Your task to perform on an android device: set the stopwatch Image 0: 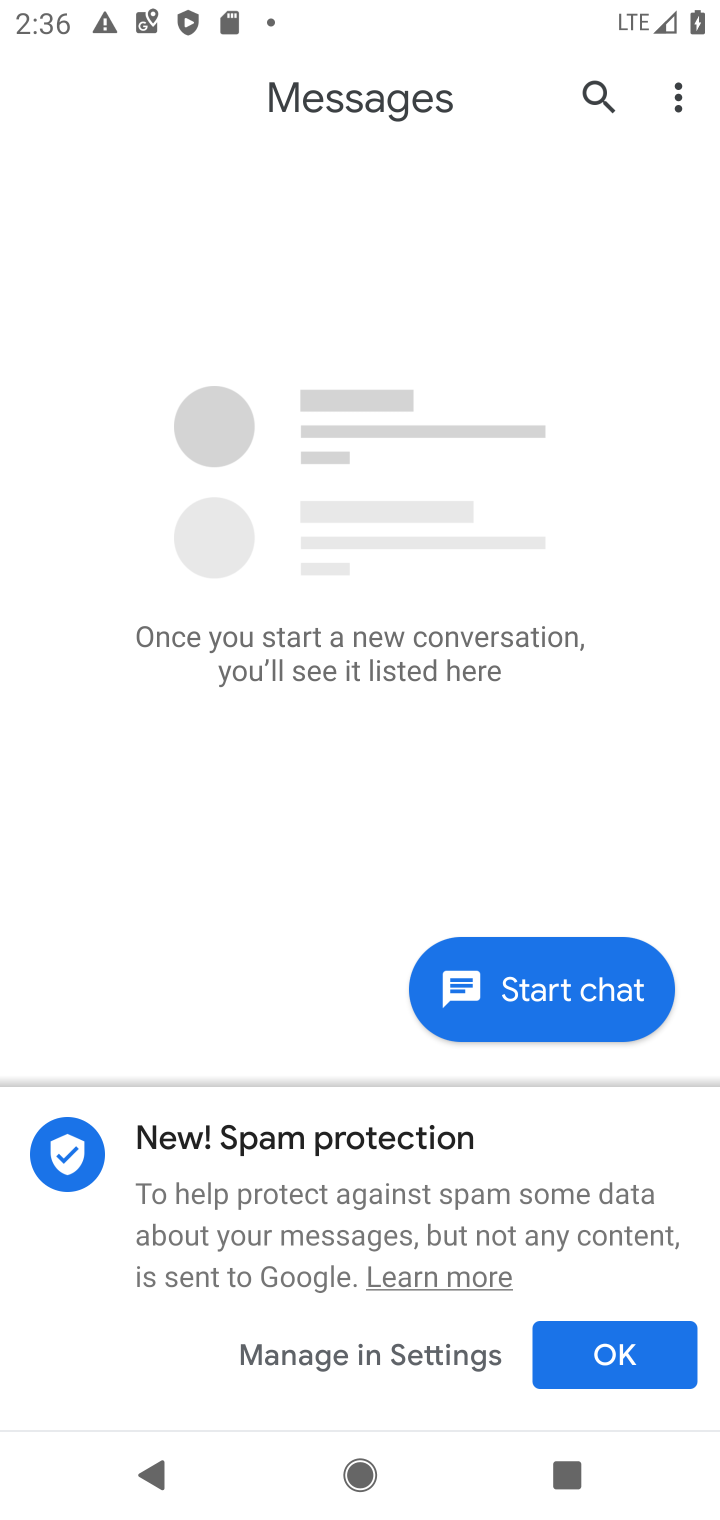
Step 0: press back button
Your task to perform on an android device: set the stopwatch Image 1: 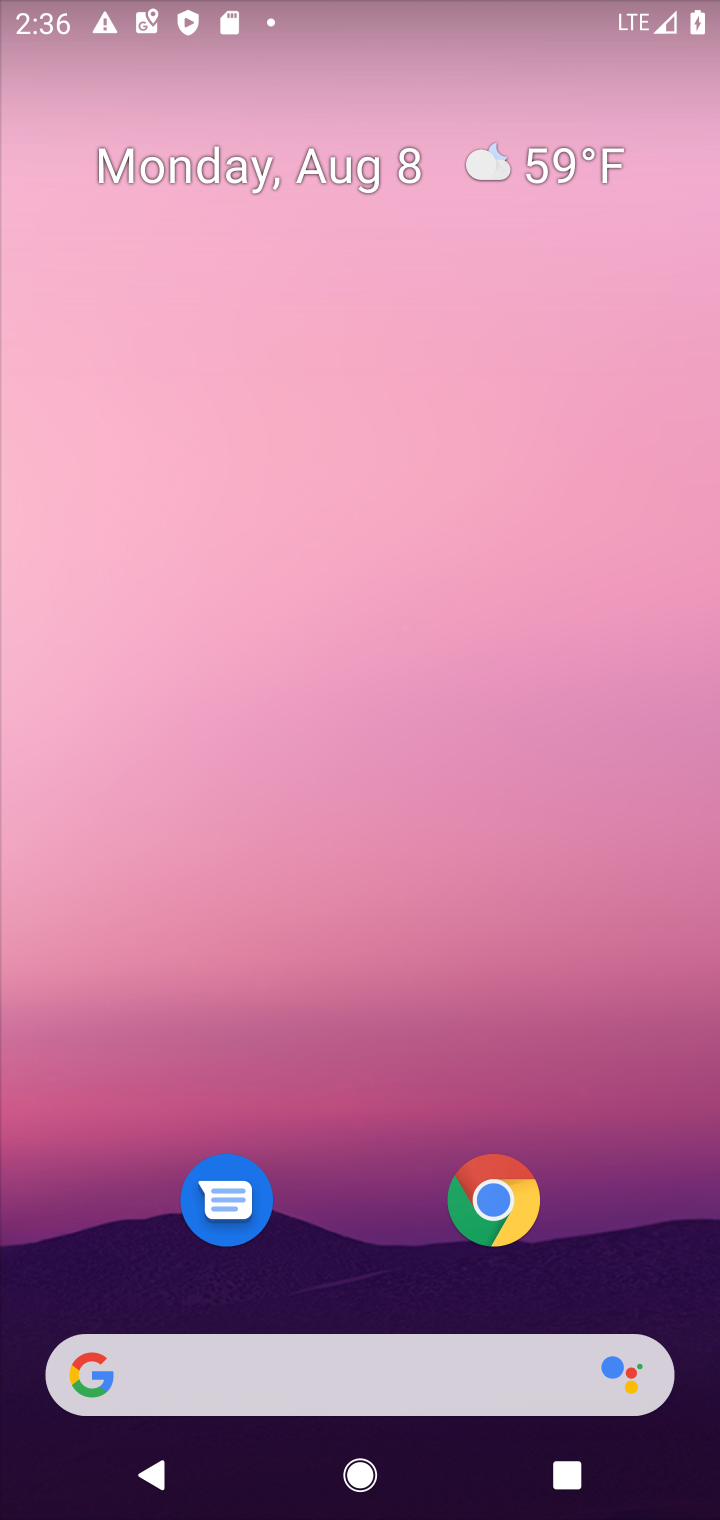
Step 1: drag from (505, 690) to (553, 1)
Your task to perform on an android device: set the stopwatch Image 2: 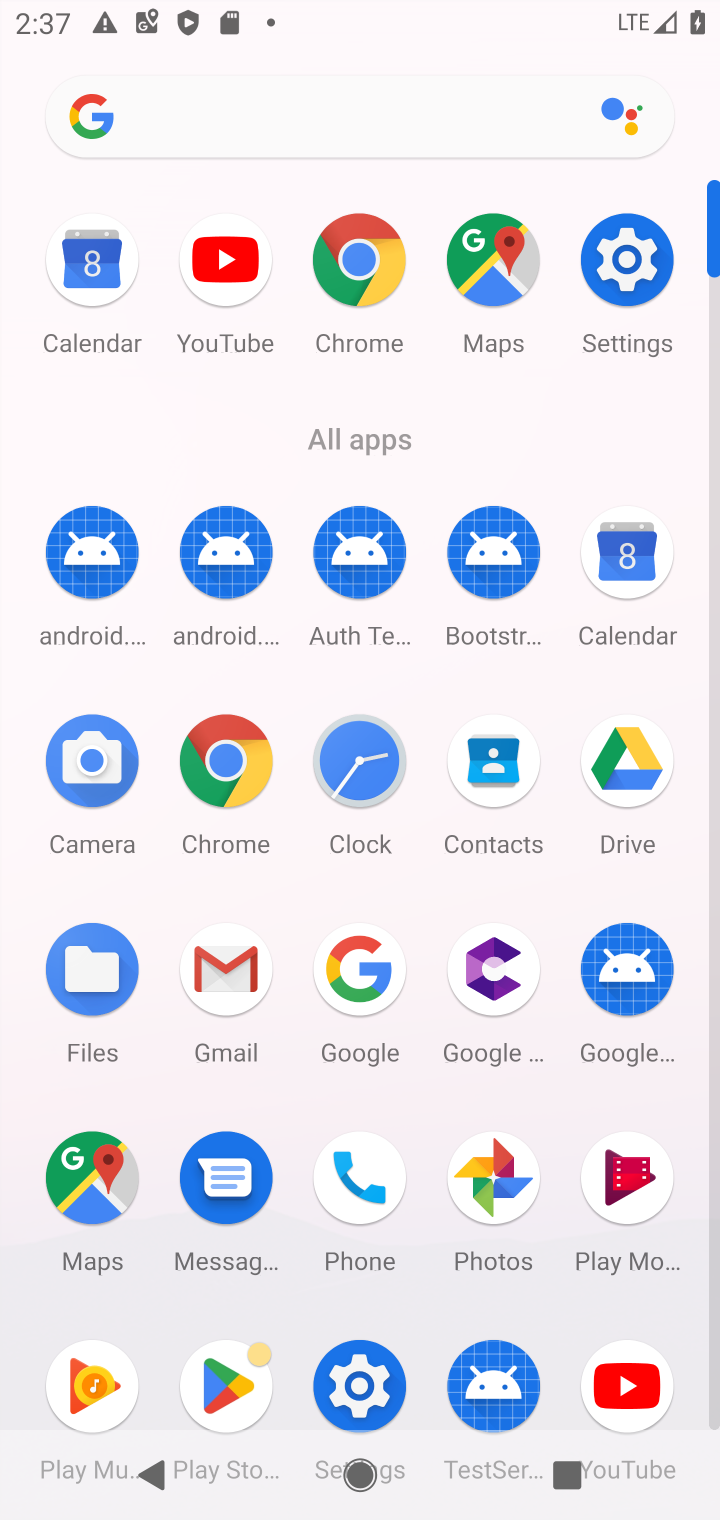
Step 2: click (352, 767)
Your task to perform on an android device: set the stopwatch Image 3: 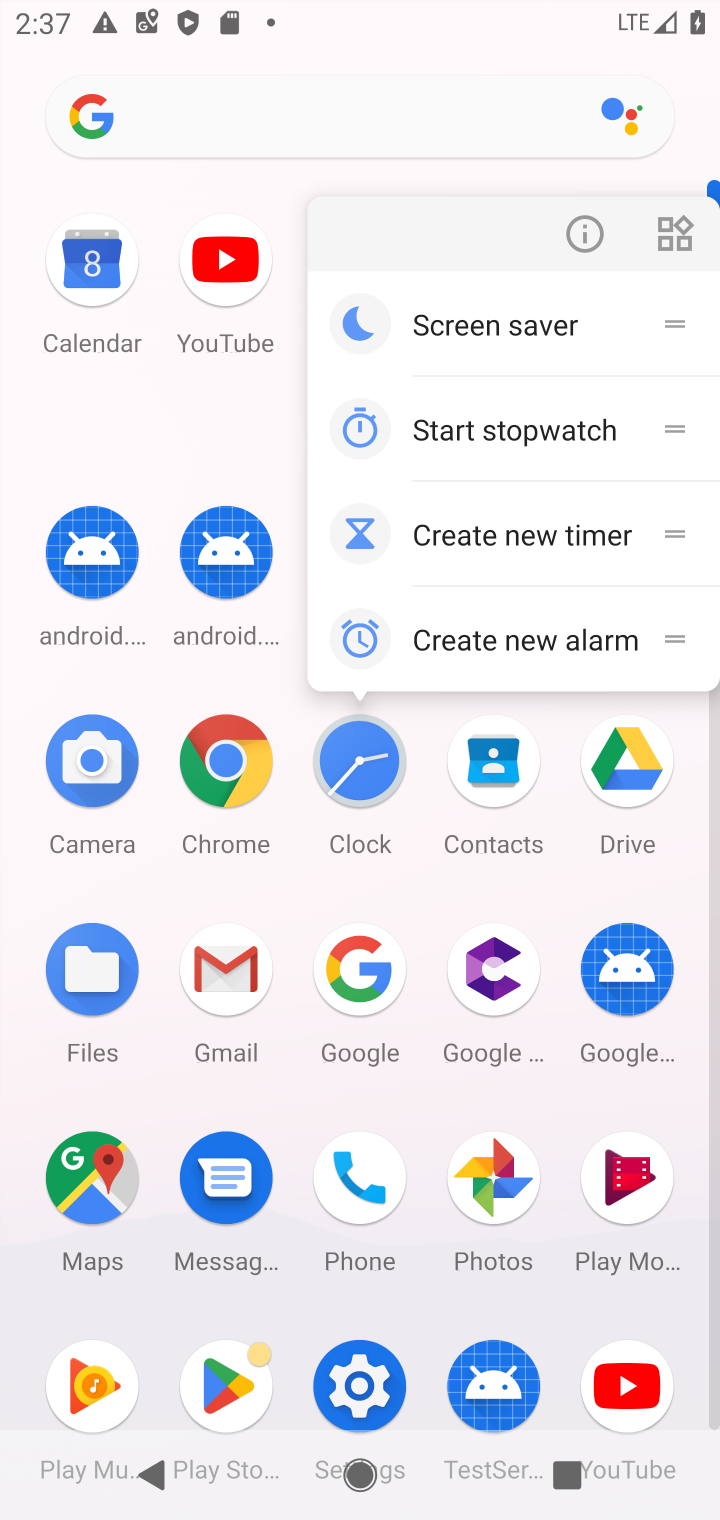
Step 3: click (352, 767)
Your task to perform on an android device: set the stopwatch Image 4: 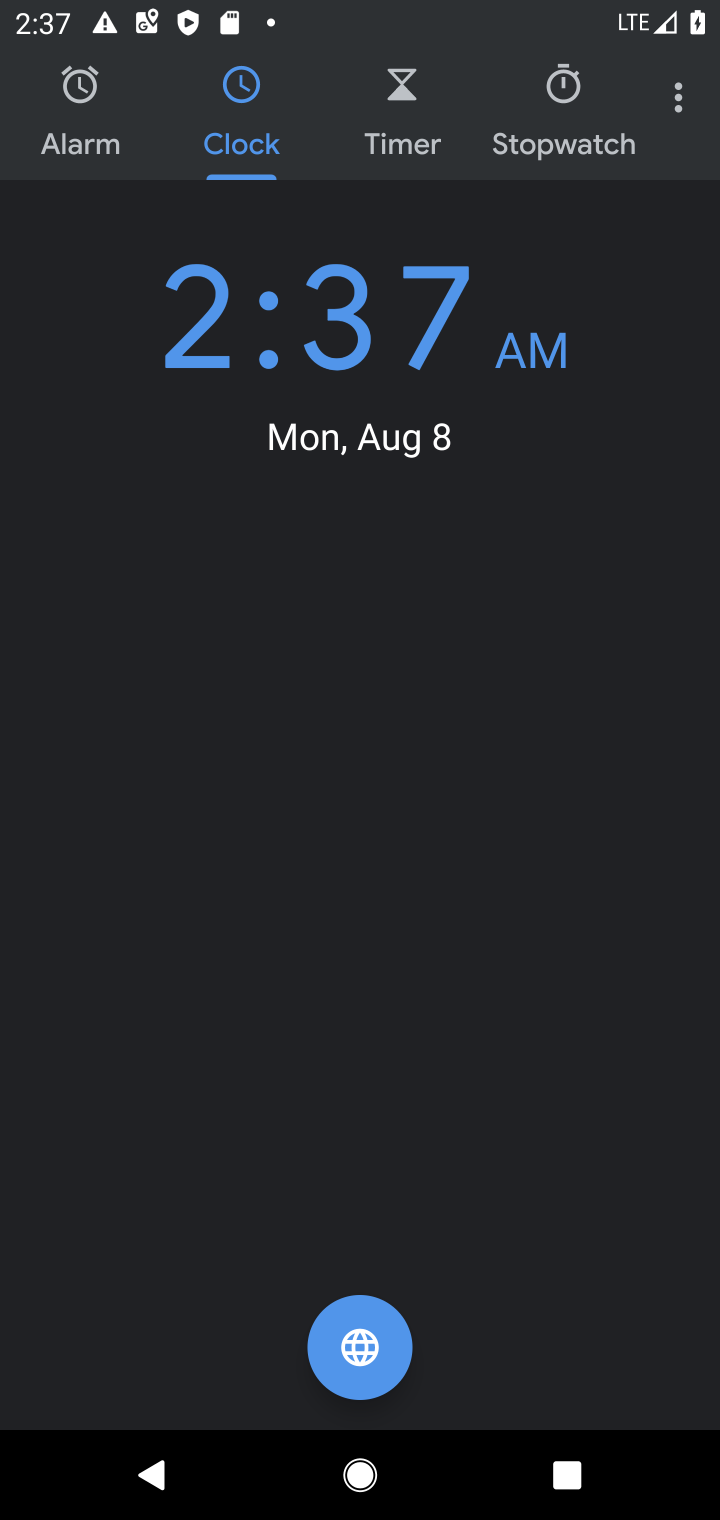
Step 4: click (552, 121)
Your task to perform on an android device: set the stopwatch Image 5: 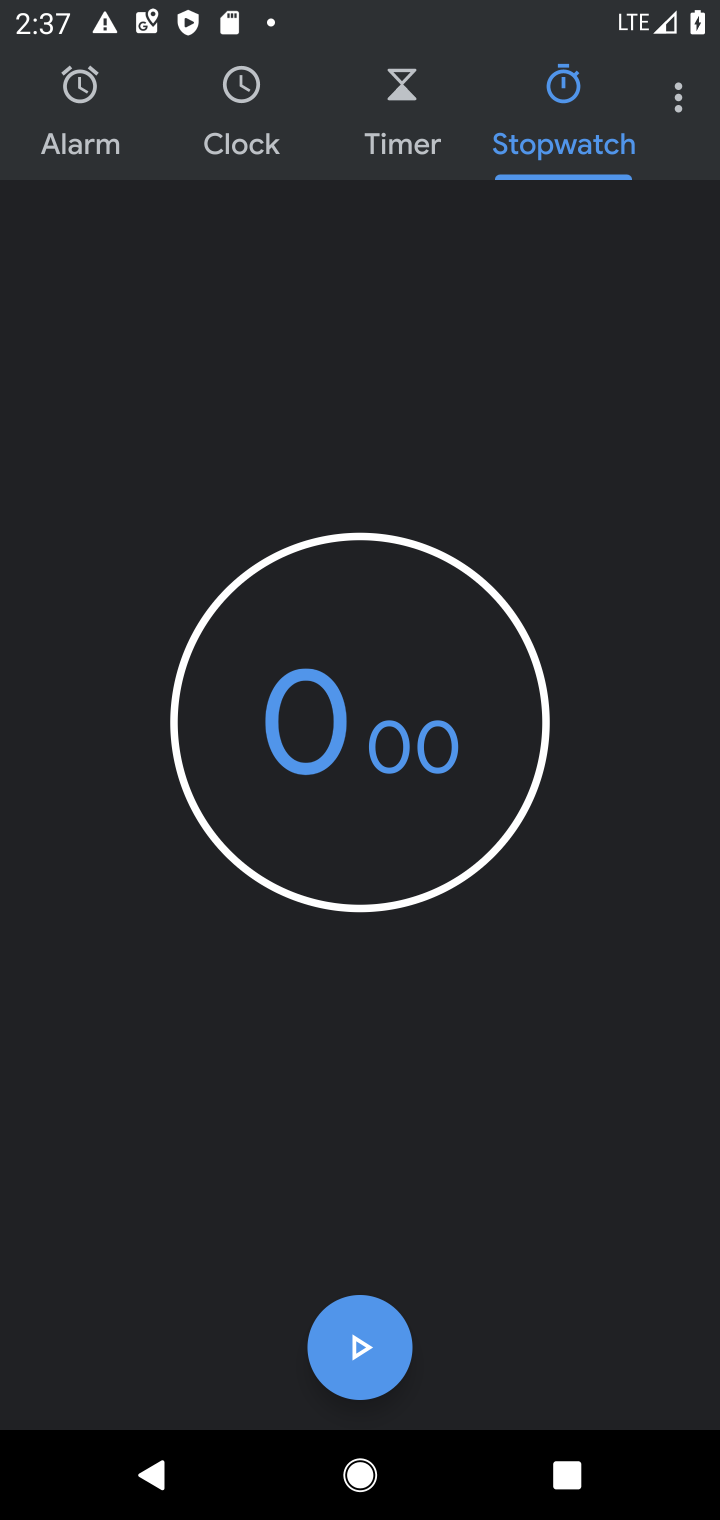
Step 5: task complete